Your task to perform on an android device: Turn on the flashlight Image 0: 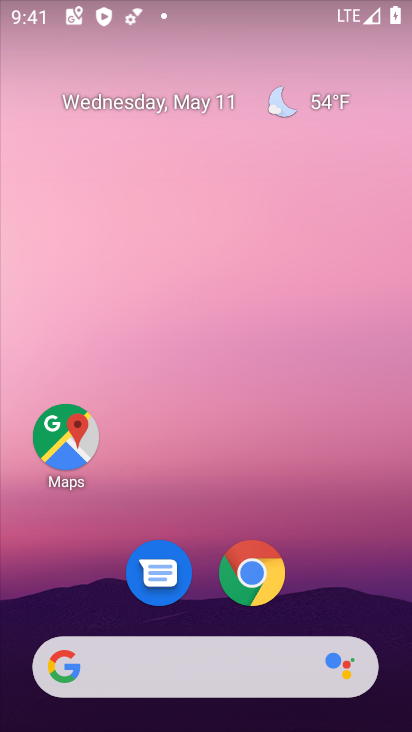
Step 0: drag from (240, 621) to (270, 0)
Your task to perform on an android device: Turn on the flashlight Image 1: 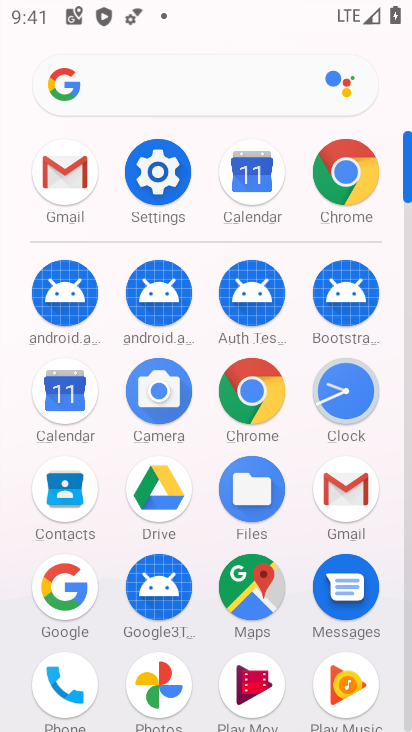
Step 1: task complete